Your task to perform on an android device: turn off notifications in google photos Image 0: 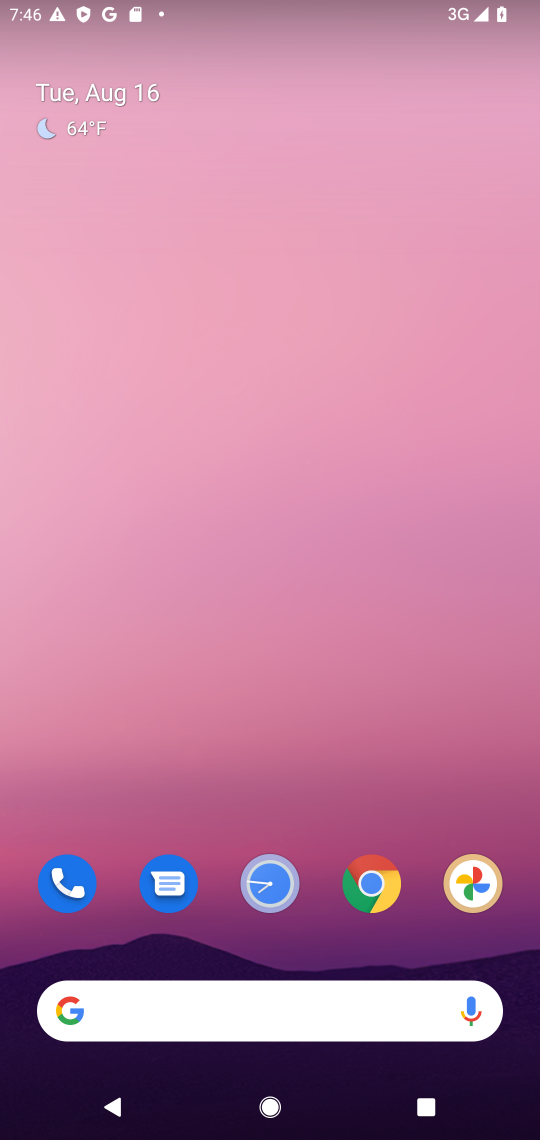
Step 0: drag from (171, 1036) to (184, 234)
Your task to perform on an android device: turn off notifications in google photos Image 1: 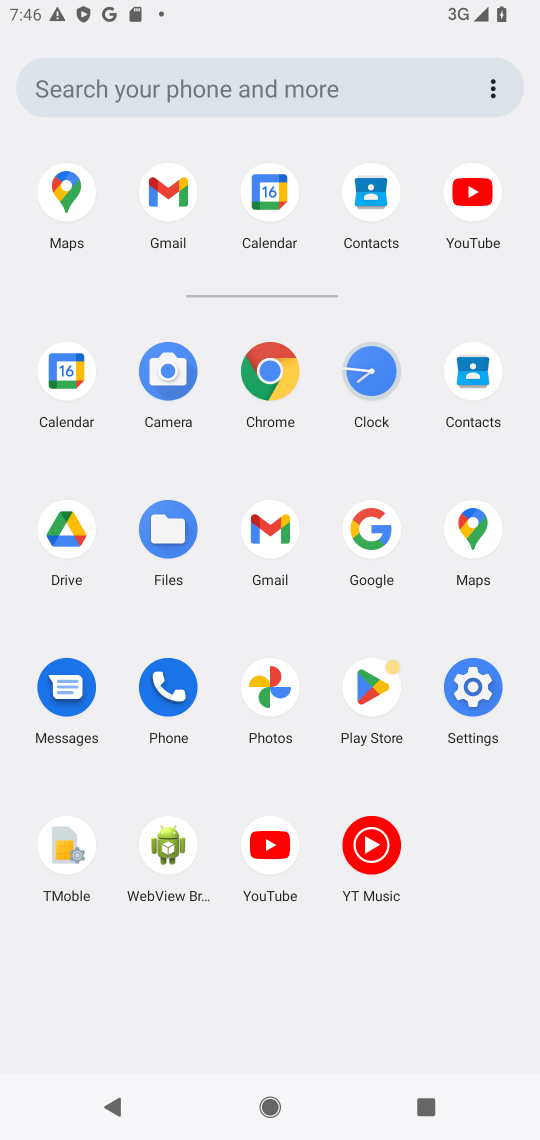
Step 1: click (270, 693)
Your task to perform on an android device: turn off notifications in google photos Image 2: 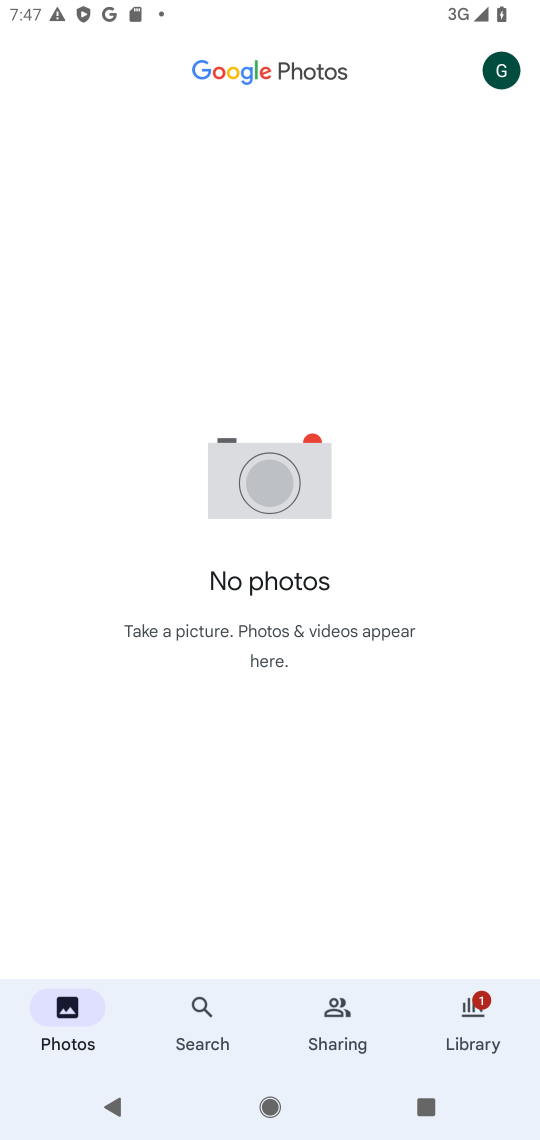
Step 2: click (508, 69)
Your task to perform on an android device: turn off notifications in google photos Image 3: 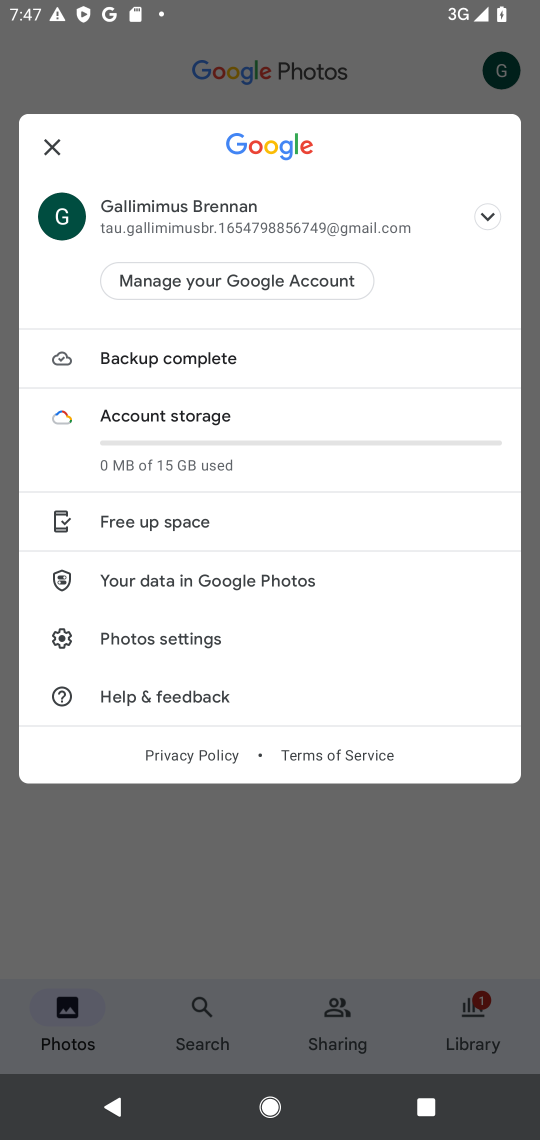
Step 3: click (200, 637)
Your task to perform on an android device: turn off notifications in google photos Image 4: 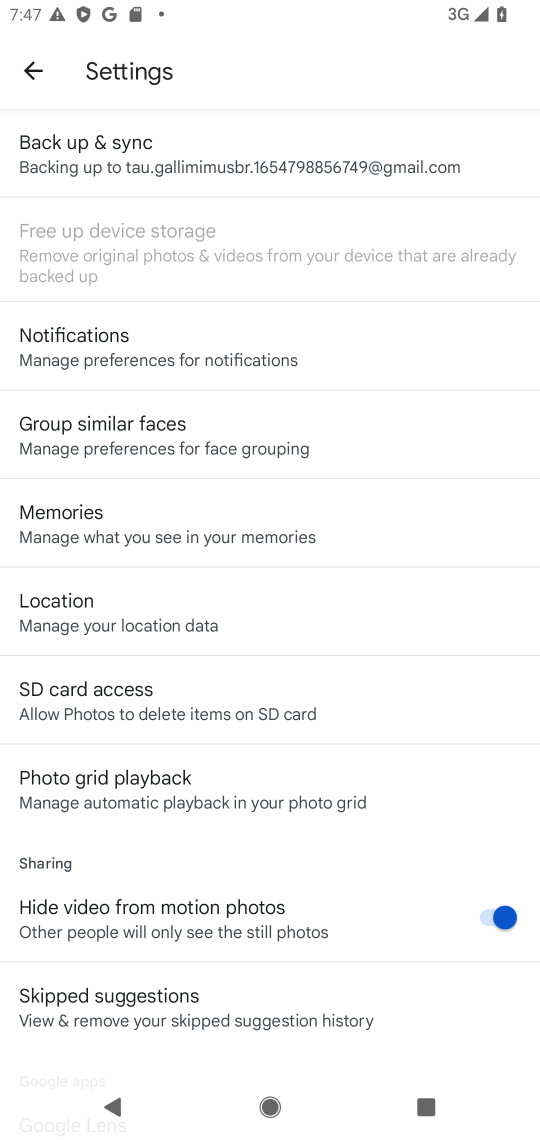
Step 4: click (186, 360)
Your task to perform on an android device: turn off notifications in google photos Image 5: 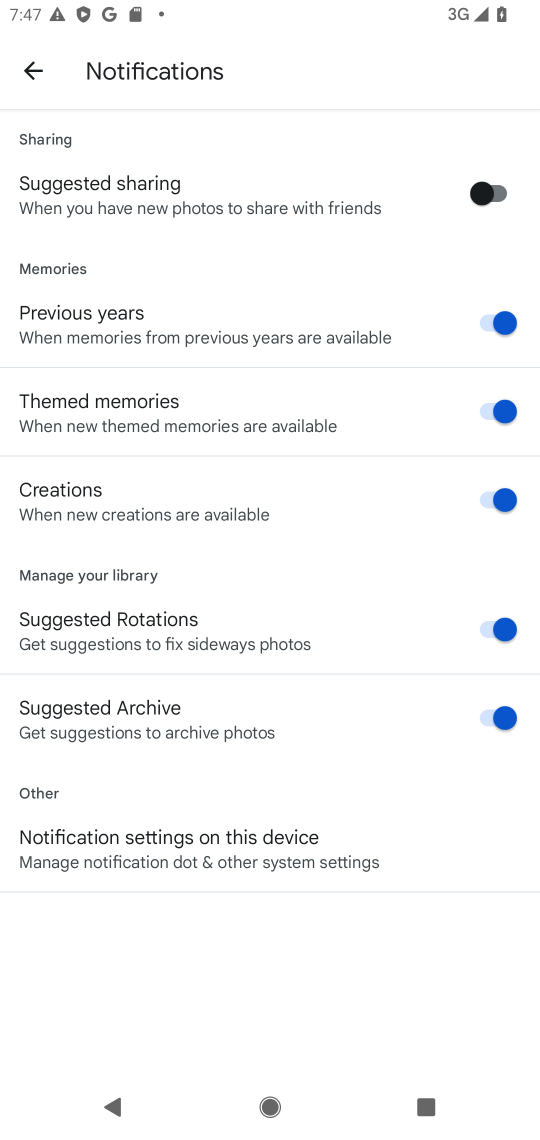
Step 5: click (192, 843)
Your task to perform on an android device: turn off notifications in google photos Image 6: 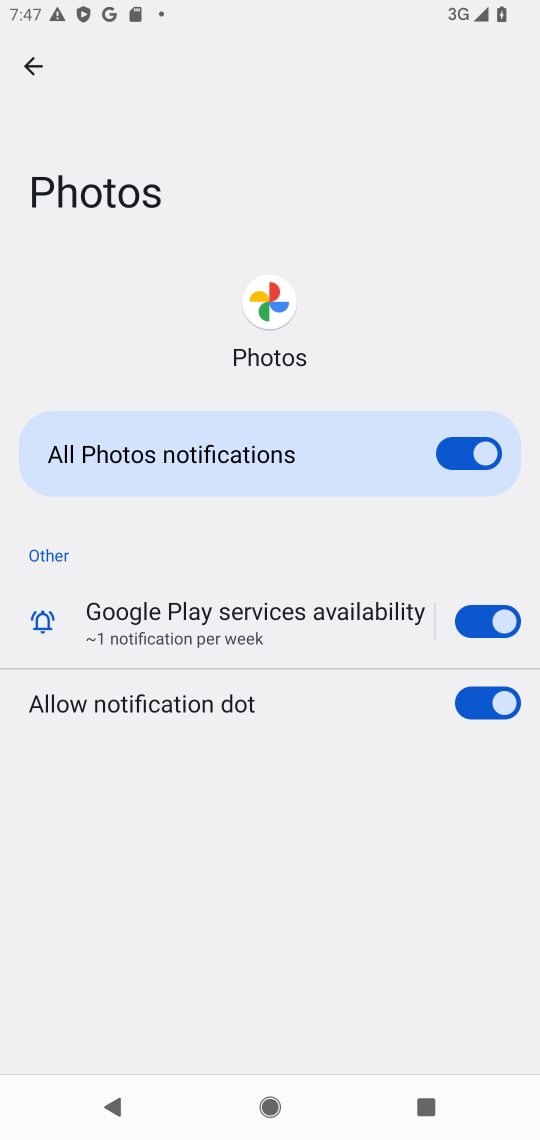
Step 6: click (455, 457)
Your task to perform on an android device: turn off notifications in google photos Image 7: 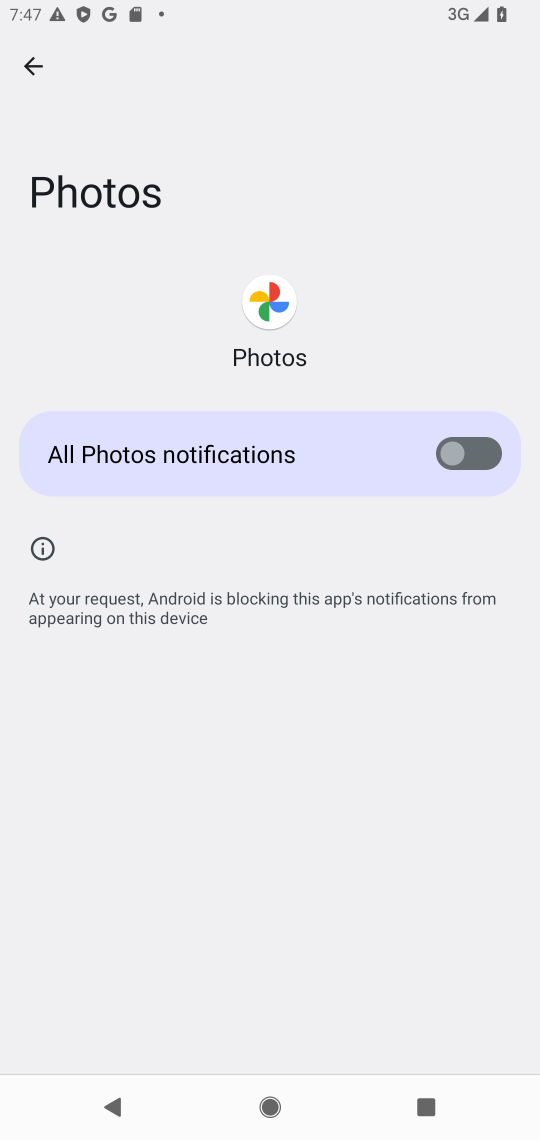
Step 7: task complete